Your task to perform on an android device: Open Amazon Image 0: 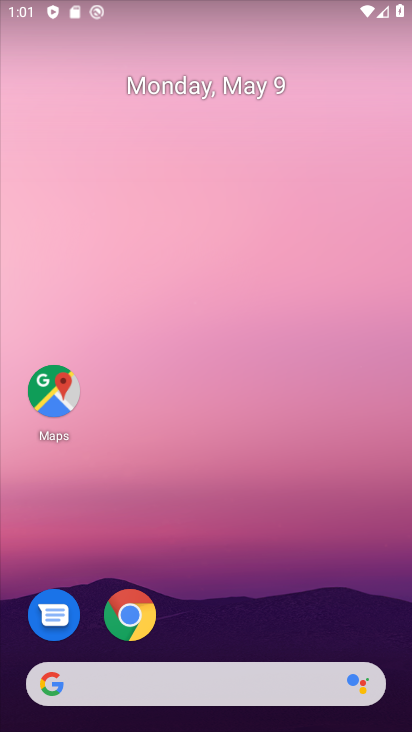
Step 0: click (133, 625)
Your task to perform on an android device: Open Amazon Image 1: 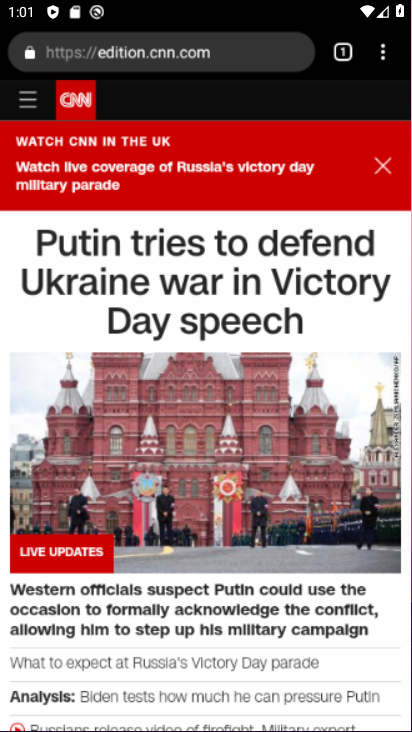
Step 1: click (133, 626)
Your task to perform on an android device: Open Amazon Image 2: 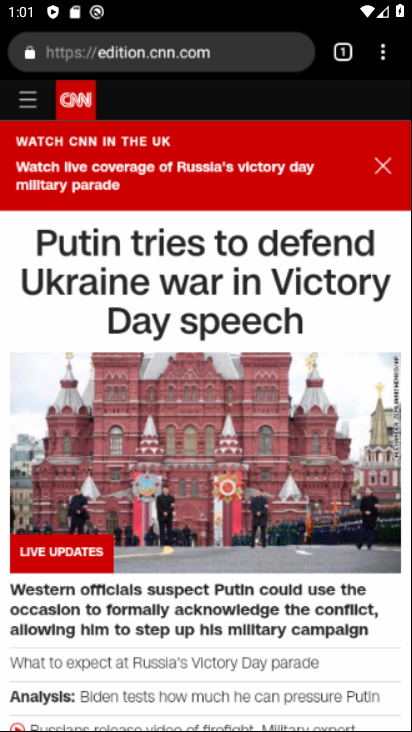
Step 2: click (133, 626)
Your task to perform on an android device: Open Amazon Image 3: 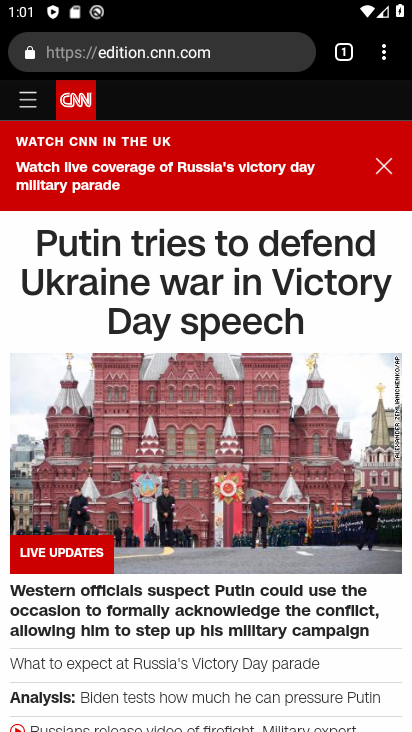
Step 3: click (336, 55)
Your task to perform on an android device: Open Amazon Image 4: 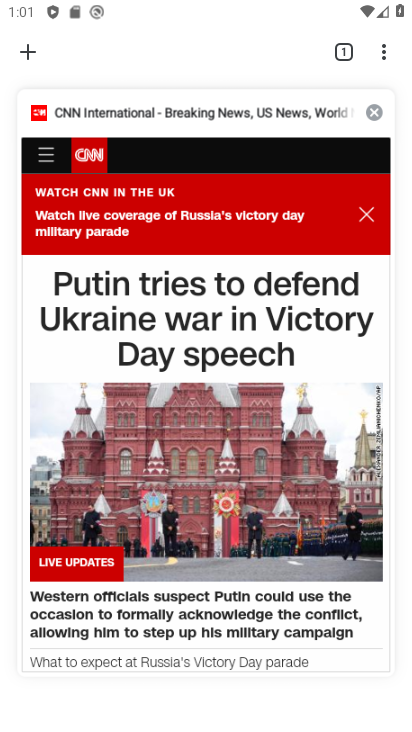
Step 4: click (371, 116)
Your task to perform on an android device: Open Amazon Image 5: 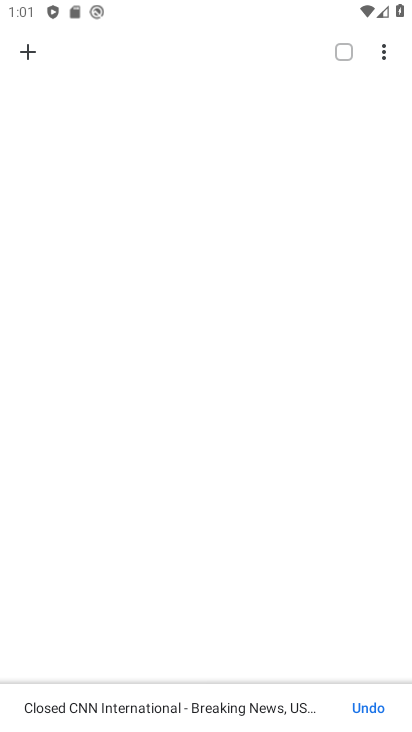
Step 5: click (41, 53)
Your task to perform on an android device: Open Amazon Image 6: 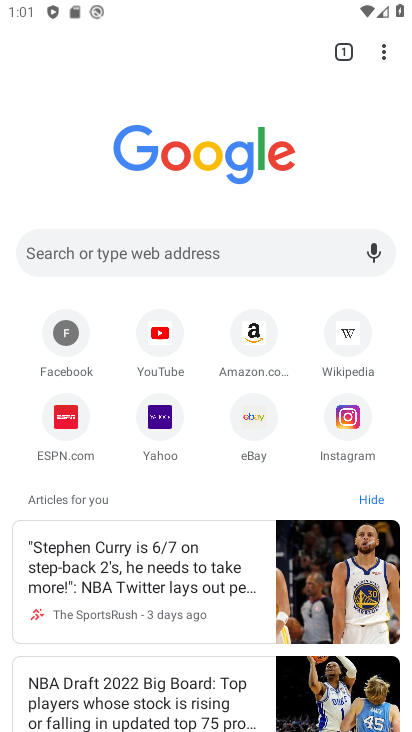
Step 6: click (243, 324)
Your task to perform on an android device: Open Amazon Image 7: 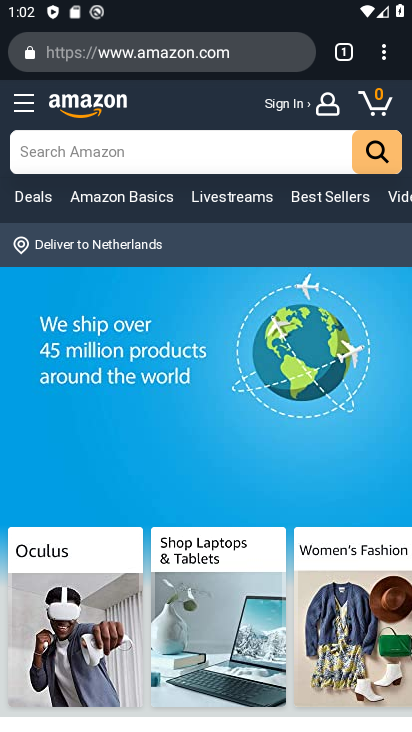
Step 7: task complete